Your task to perform on an android device: delete the emails in spam in the gmail app Image 0: 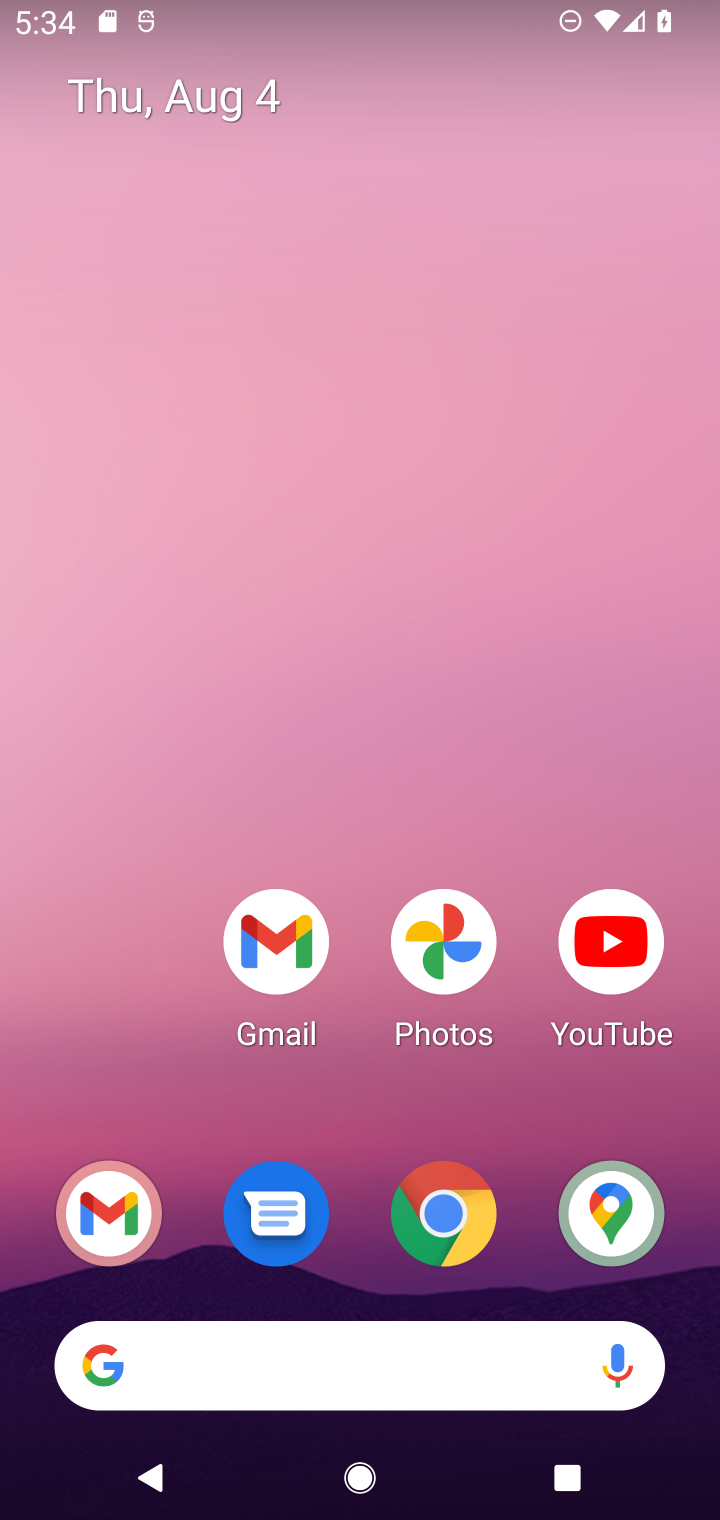
Step 0: press home button
Your task to perform on an android device: delete the emails in spam in the gmail app Image 1: 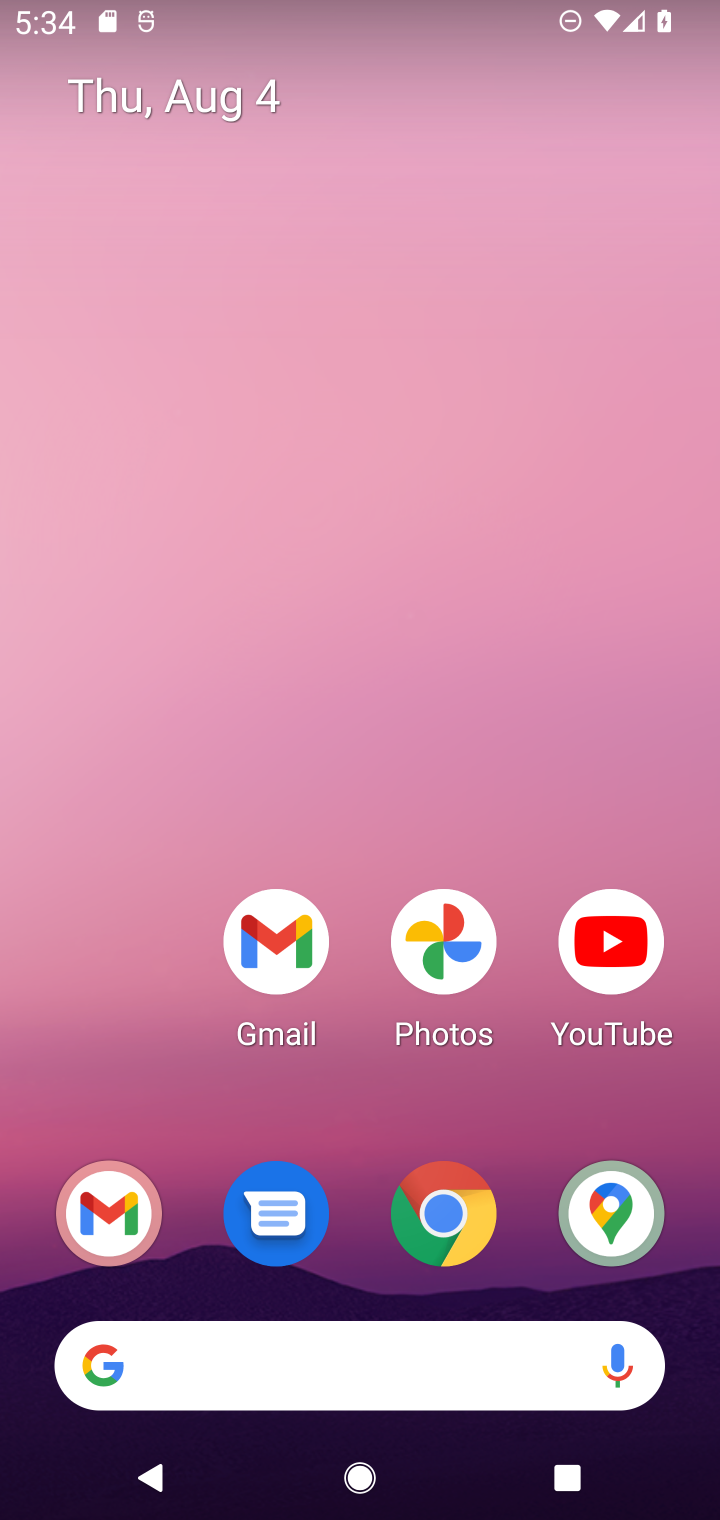
Step 1: drag from (175, 1120) to (163, 299)
Your task to perform on an android device: delete the emails in spam in the gmail app Image 2: 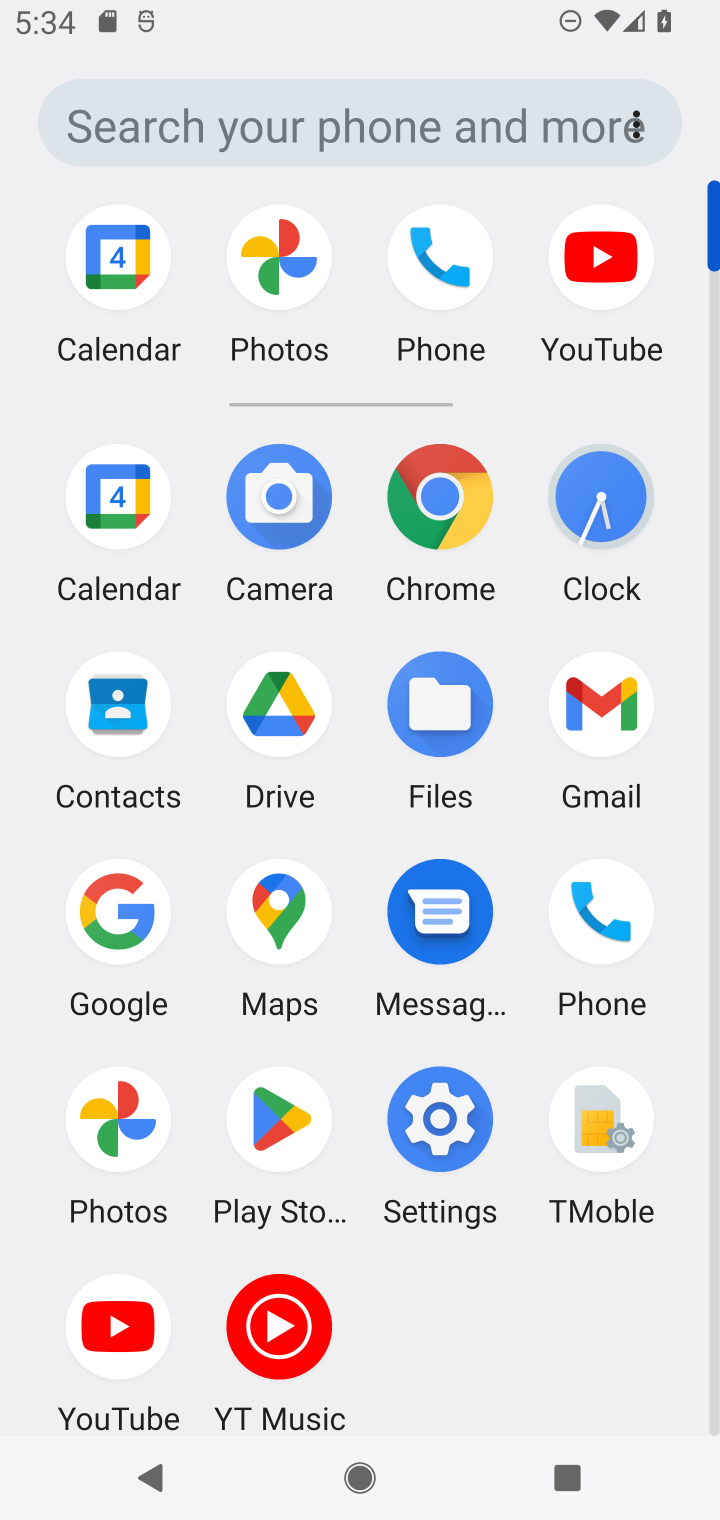
Step 2: click (600, 741)
Your task to perform on an android device: delete the emails in spam in the gmail app Image 3: 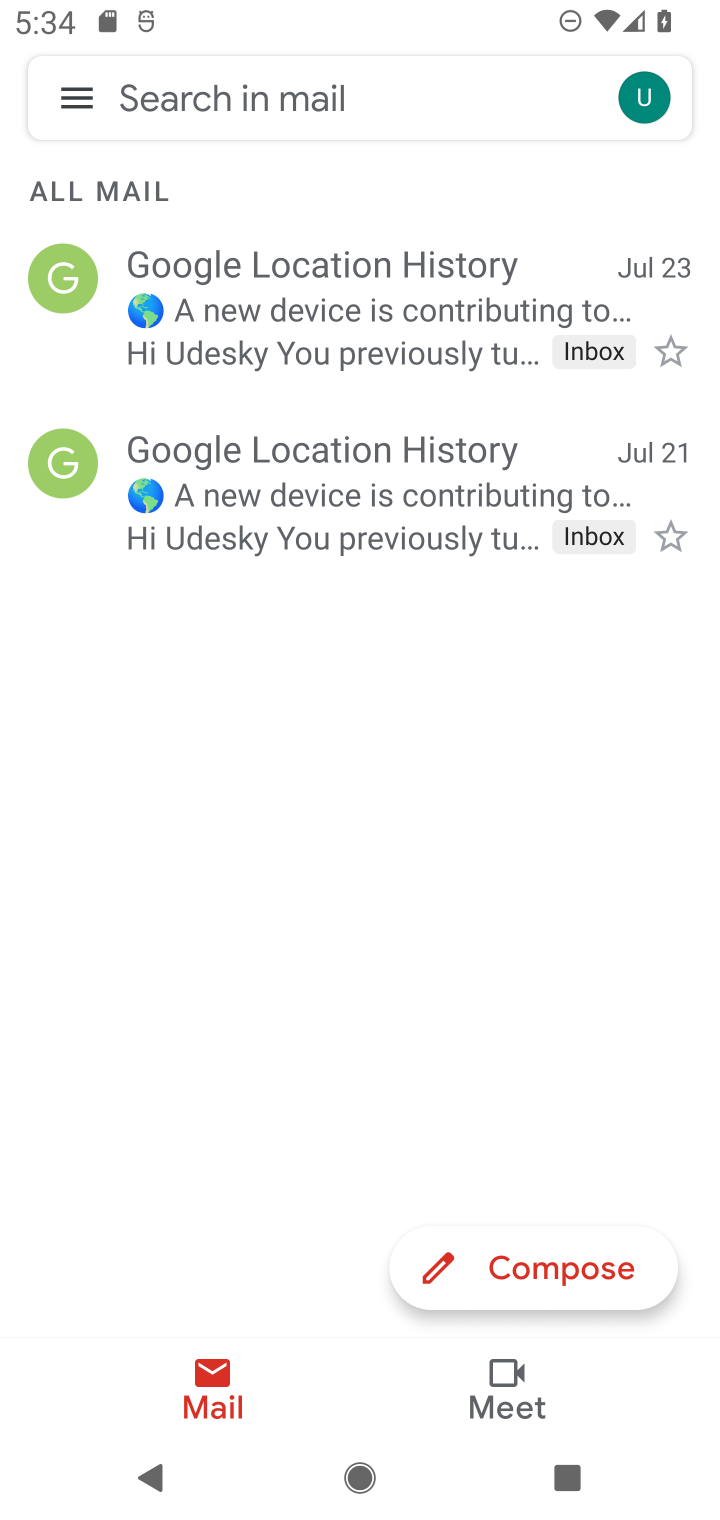
Step 3: click (78, 92)
Your task to perform on an android device: delete the emails in spam in the gmail app Image 4: 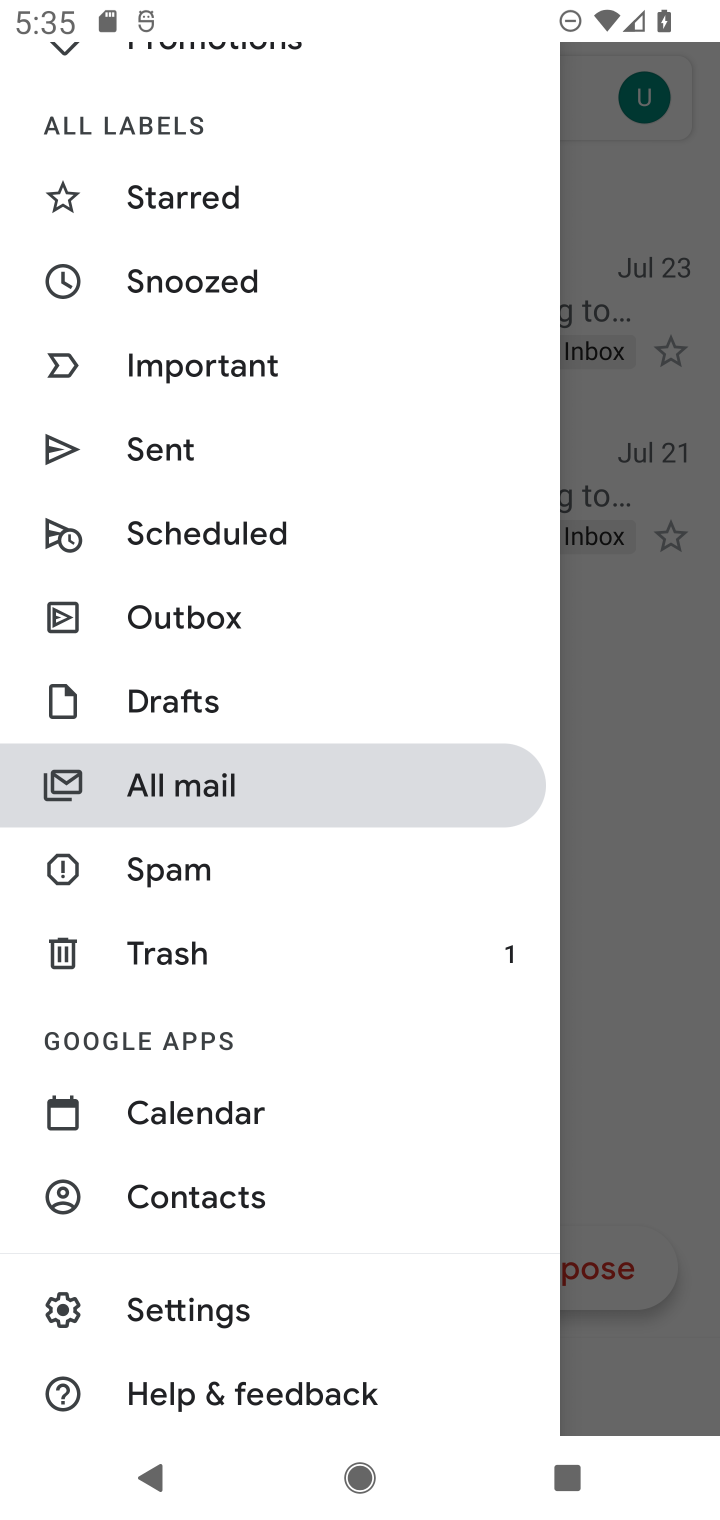
Step 4: click (242, 855)
Your task to perform on an android device: delete the emails in spam in the gmail app Image 5: 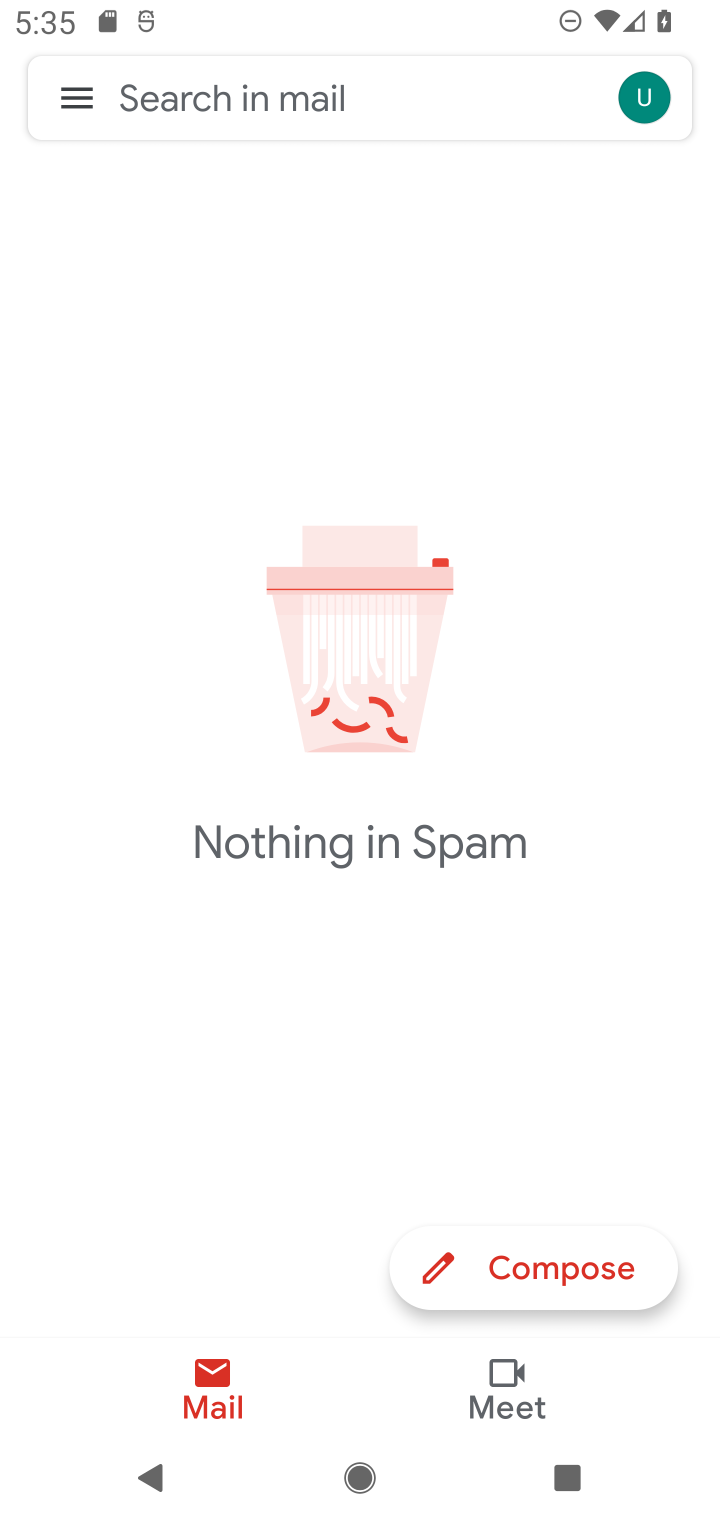
Step 5: task complete